Your task to perform on an android device: see sites visited before in the chrome app Image 0: 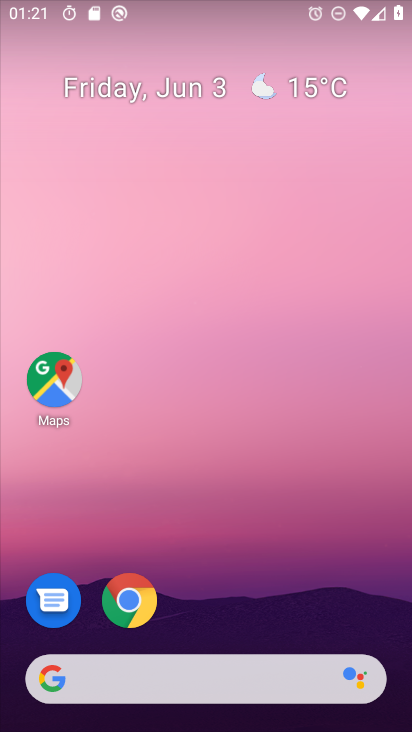
Step 0: click (133, 608)
Your task to perform on an android device: see sites visited before in the chrome app Image 1: 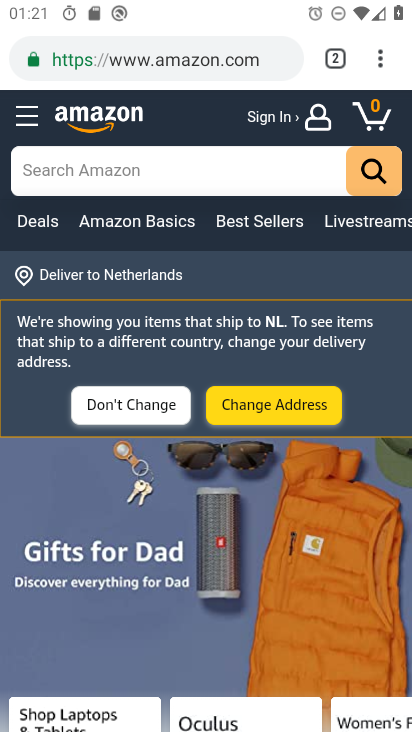
Step 1: click (376, 56)
Your task to perform on an android device: see sites visited before in the chrome app Image 2: 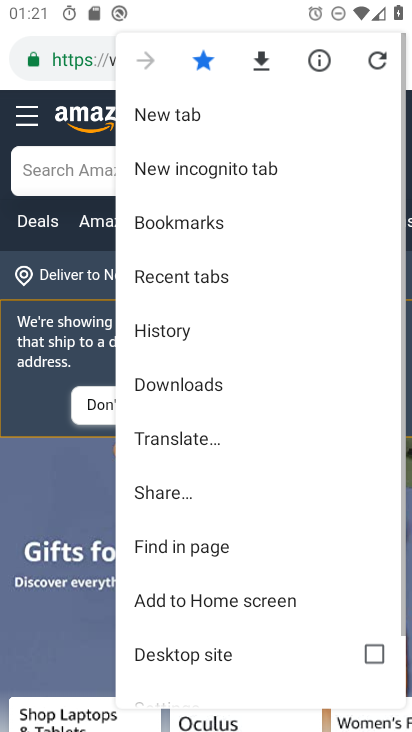
Step 2: click (218, 332)
Your task to perform on an android device: see sites visited before in the chrome app Image 3: 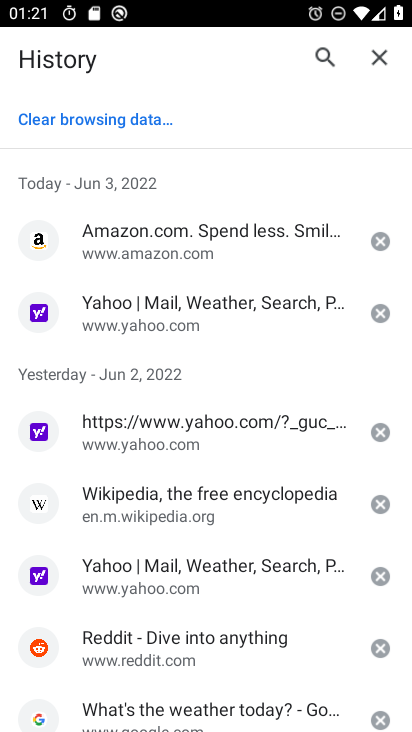
Step 3: task complete